Your task to perform on an android device: Open battery settings Image 0: 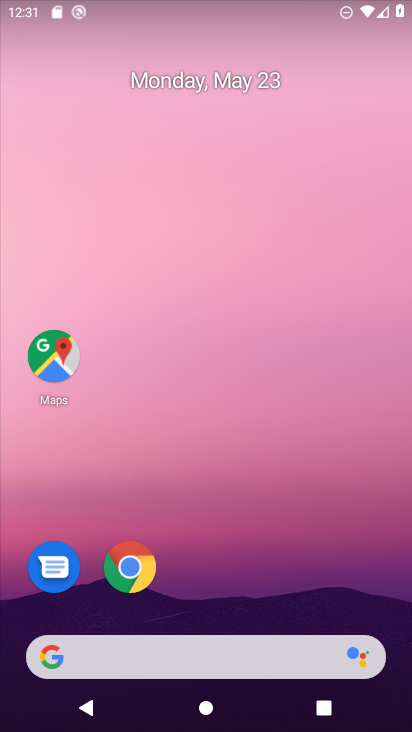
Step 0: drag from (177, 623) to (219, 131)
Your task to perform on an android device: Open battery settings Image 1: 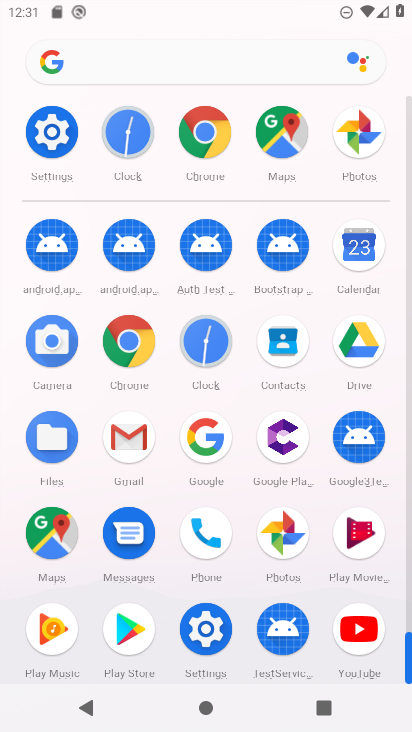
Step 1: click (36, 133)
Your task to perform on an android device: Open battery settings Image 2: 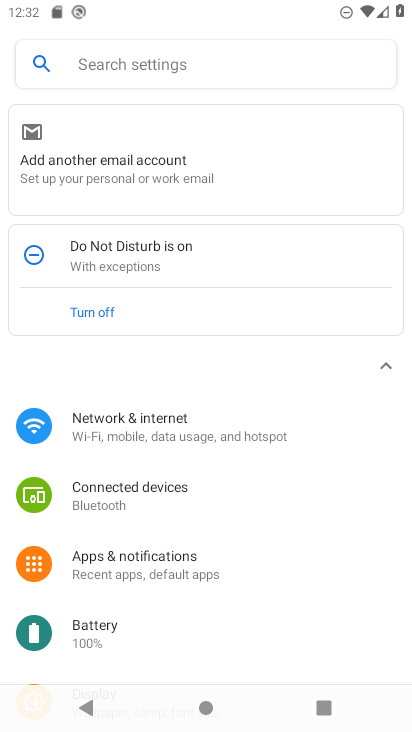
Step 2: click (90, 636)
Your task to perform on an android device: Open battery settings Image 3: 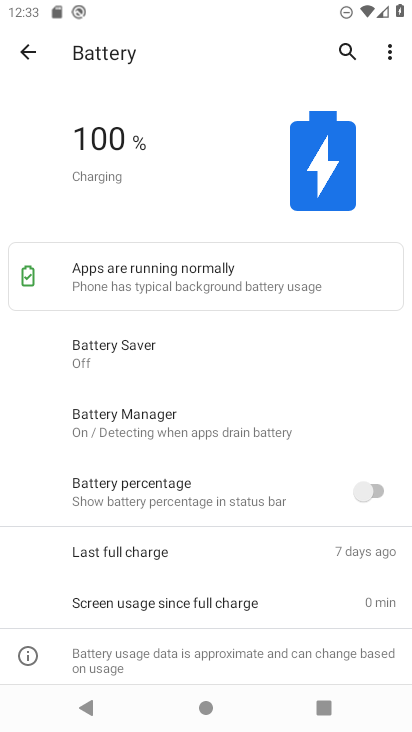
Step 3: task complete